Your task to perform on an android device: turn on javascript in the chrome app Image 0: 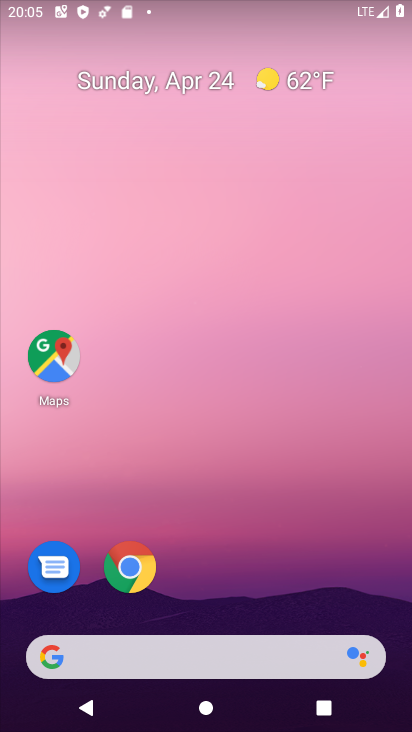
Step 0: click (129, 569)
Your task to perform on an android device: turn on javascript in the chrome app Image 1: 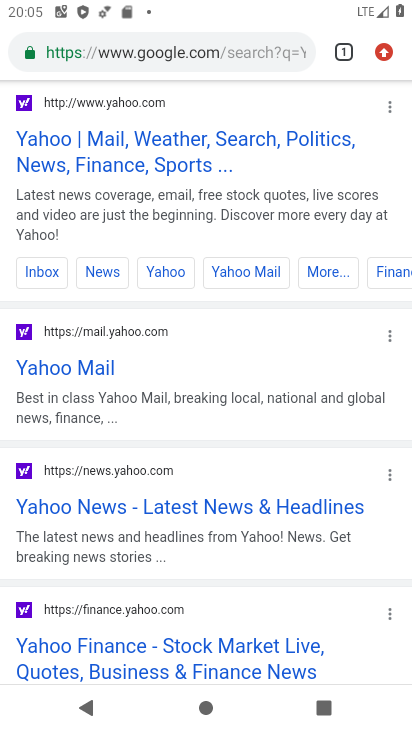
Step 1: click (382, 50)
Your task to perform on an android device: turn on javascript in the chrome app Image 2: 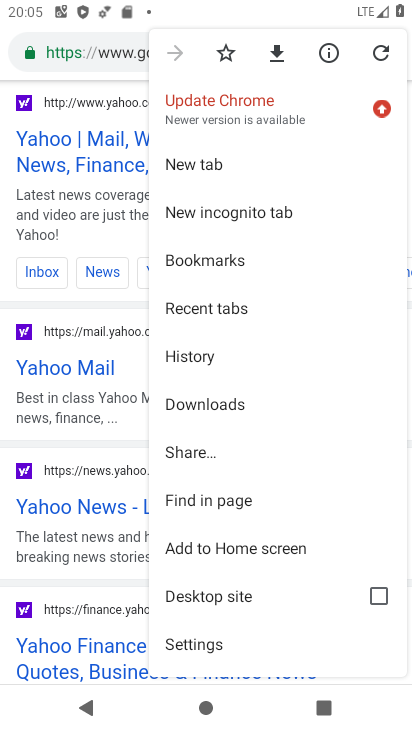
Step 2: click (200, 647)
Your task to perform on an android device: turn on javascript in the chrome app Image 3: 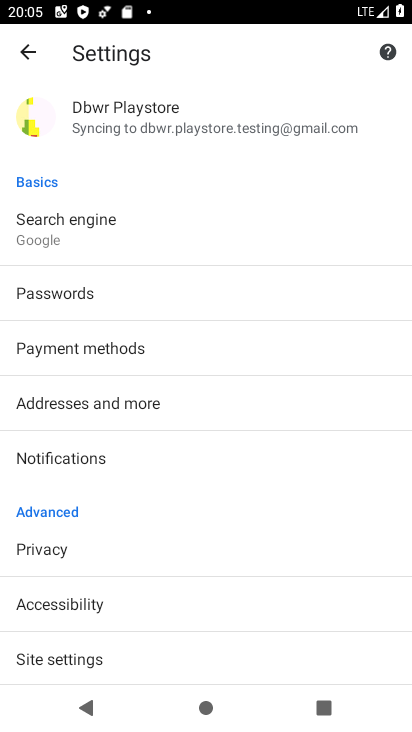
Step 3: click (86, 660)
Your task to perform on an android device: turn on javascript in the chrome app Image 4: 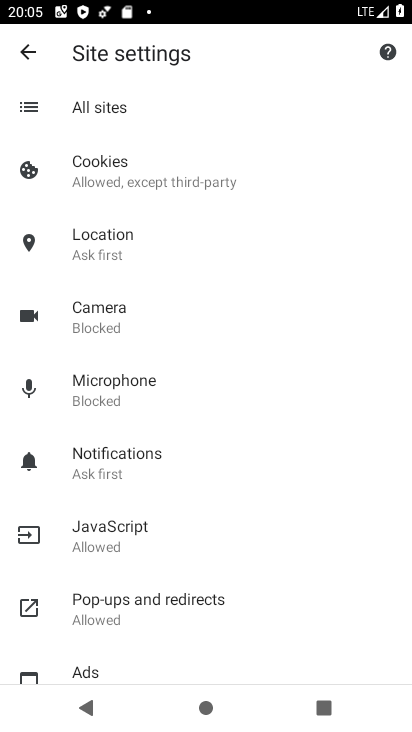
Step 4: click (122, 547)
Your task to perform on an android device: turn on javascript in the chrome app Image 5: 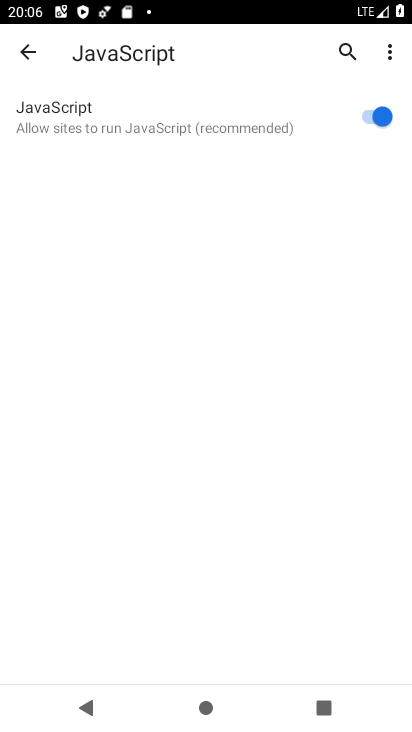
Step 5: task complete